Your task to perform on an android device: Do I have any events today? Image 0: 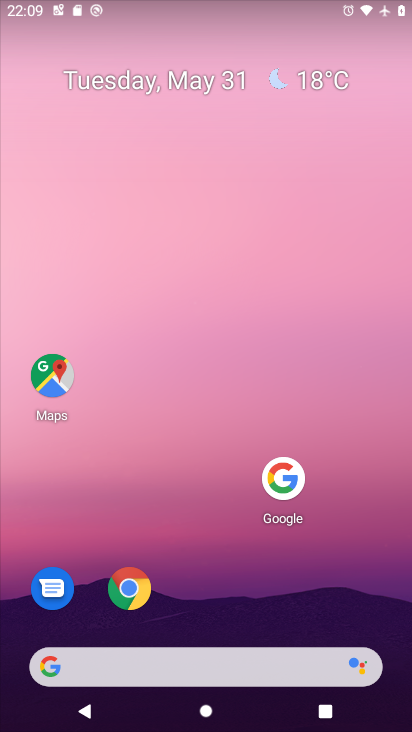
Step 0: press home button
Your task to perform on an android device: Do I have any events today? Image 1: 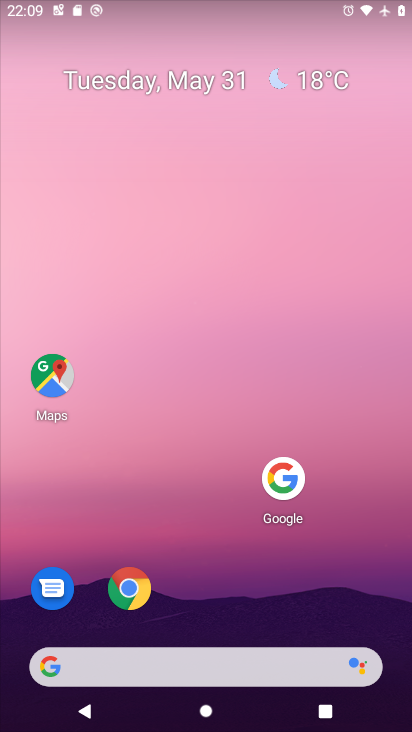
Step 1: drag from (136, 664) to (252, 176)
Your task to perform on an android device: Do I have any events today? Image 2: 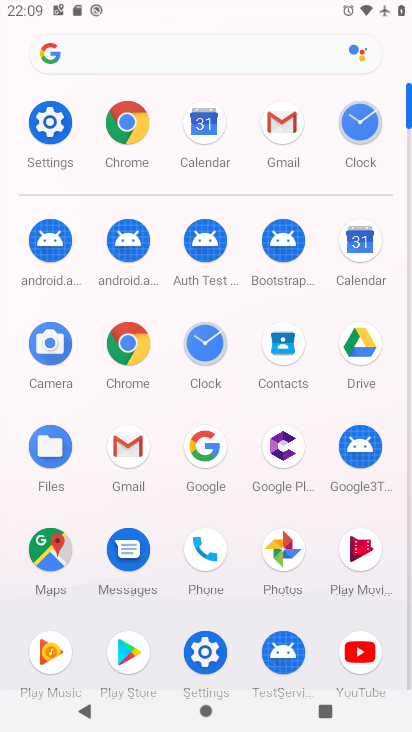
Step 2: click (365, 242)
Your task to perform on an android device: Do I have any events today? Image 3: 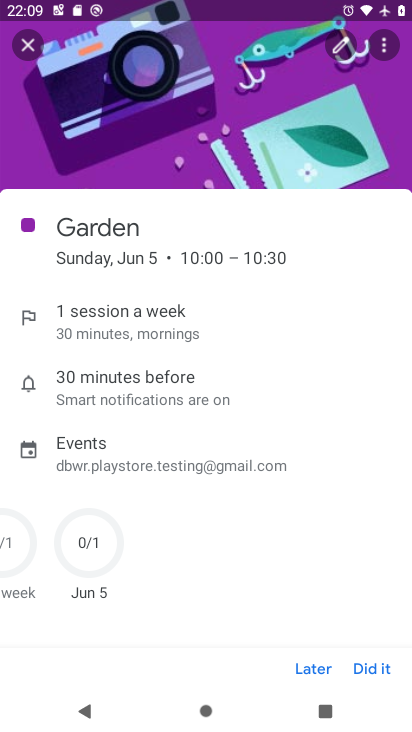
Step 3: click (29, 45)
Your task to perform on an android device: Do I have any events today? Image 4: 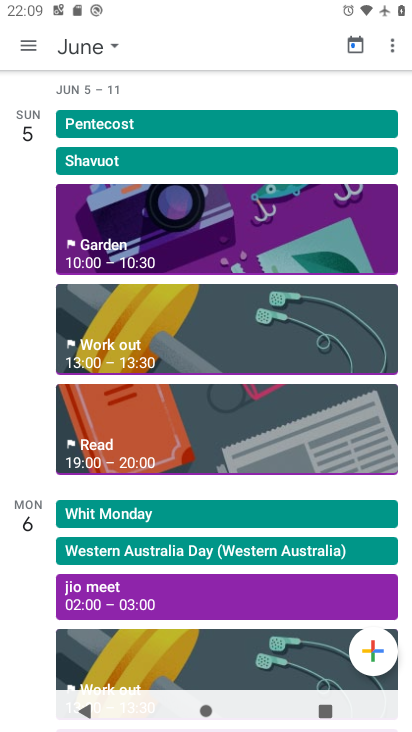
Step 4: click (72, 41)
Your task to perform on an android device: Do I have any events today? Image 5: 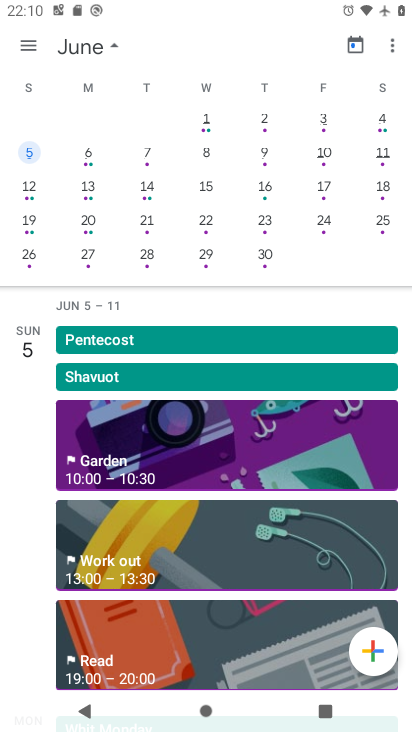
Step 5: drag from (64, 207) to (406, 210)
Your task to perform on an android device: Do I have any events today? Image 6: 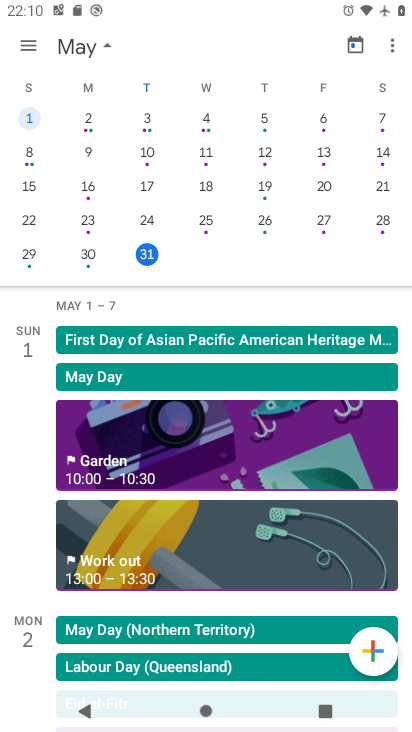
Step 6: click (57, 257)
Your task to perform on an android device: Do I have any events today? Image 7: 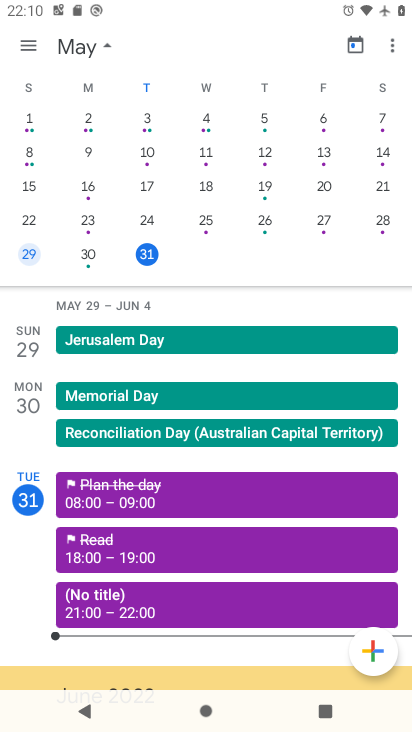
Step 7: click (17, 42)
Your task to perform on an android device: Do I have any events today? Image 8: 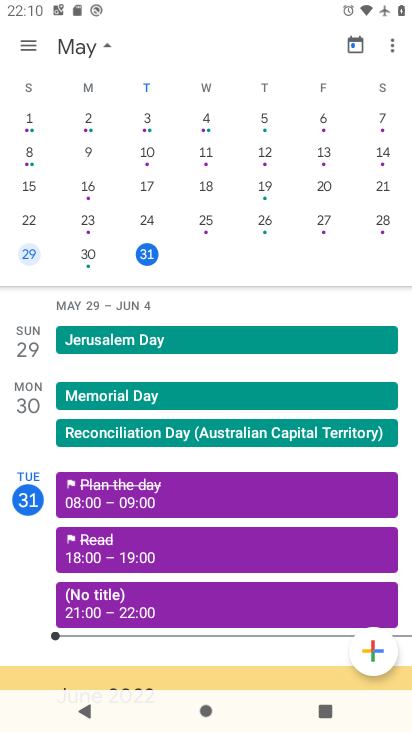
Step 8: click (28, 41)
Your task to perform on an android device: Do I have any events today? Image 9: 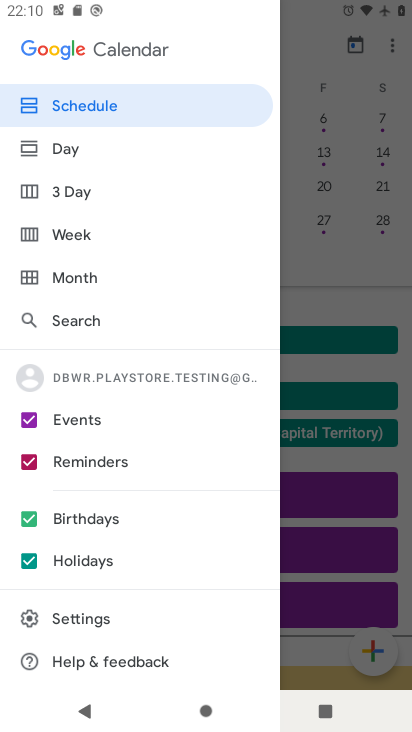
Step 9: click (112, 107)
Your task to perform on an android device: Do I have any events today? Image 10: 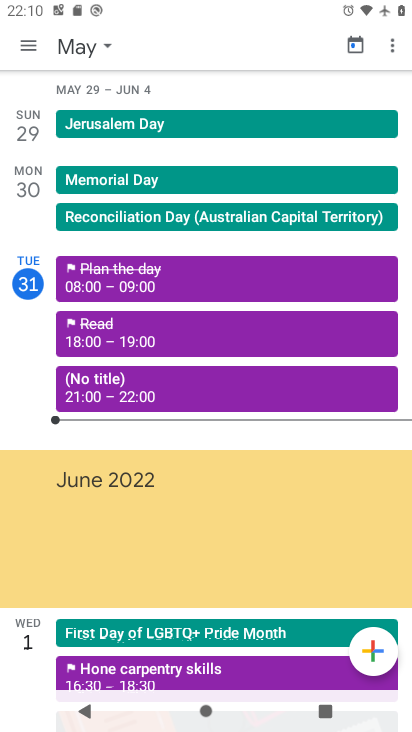
Step 10: click (148, 394)
Your task to perform on an android device: Do I have any events today? Image 11: 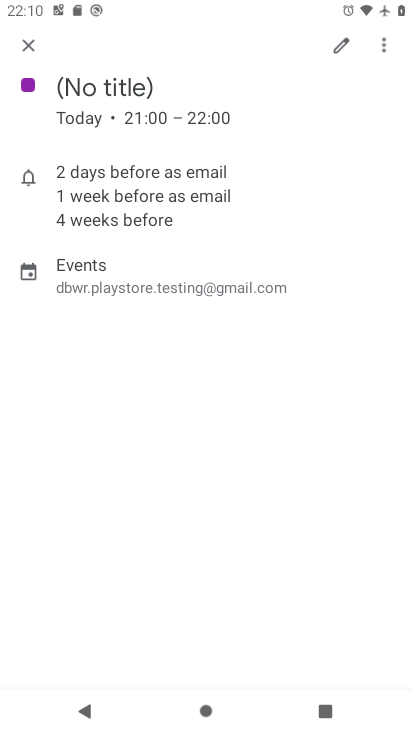
Step 11: task complete